Your task to perform on an android device: Turn off the flashlight Image 0: 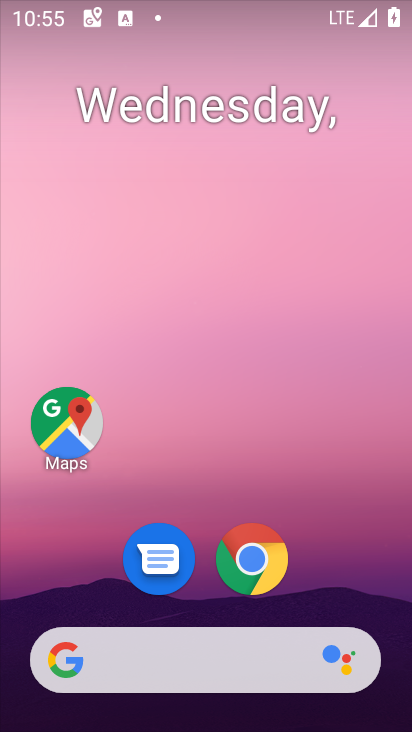
Step 0: drag from (176, 614) to (196, 0)
Your task to perform on an android device: Turn off the flashlight Image 1: 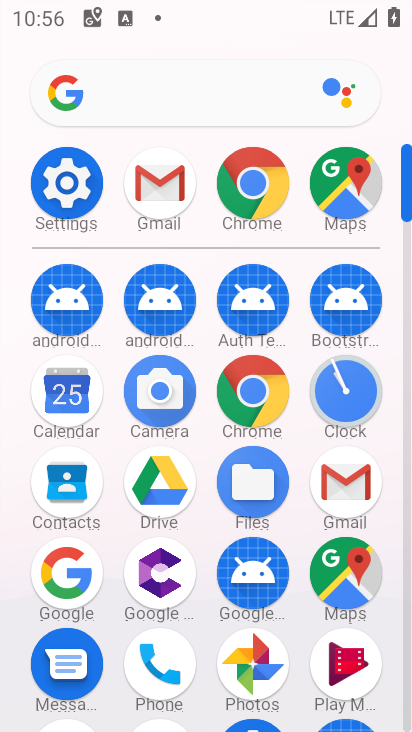
Step 1: task complete